Your task to perform on an android device: toggle notification dots Image 0: 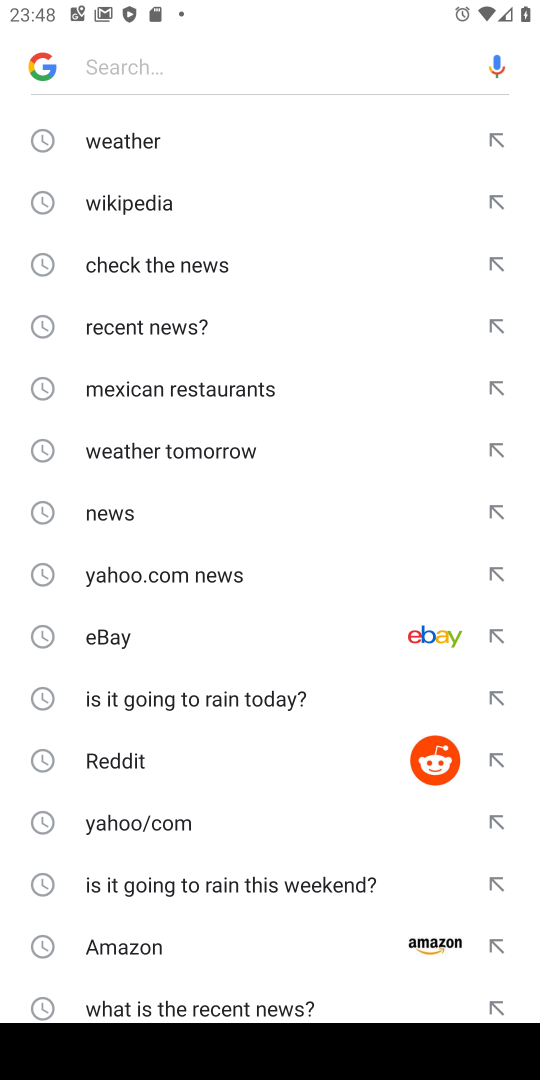
Step 0: press home button
Your task to perform on an android device: toggle notification dots Image 1: 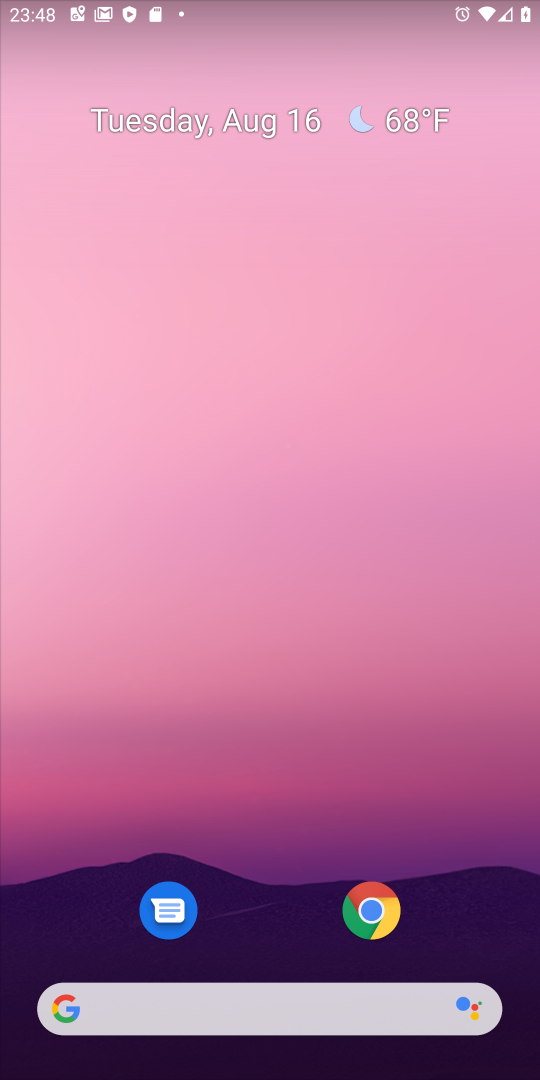
Step 1: drag from (258, 939) to (336, 217)
Your task to perform on an android device: toggle notification dots Image 2: 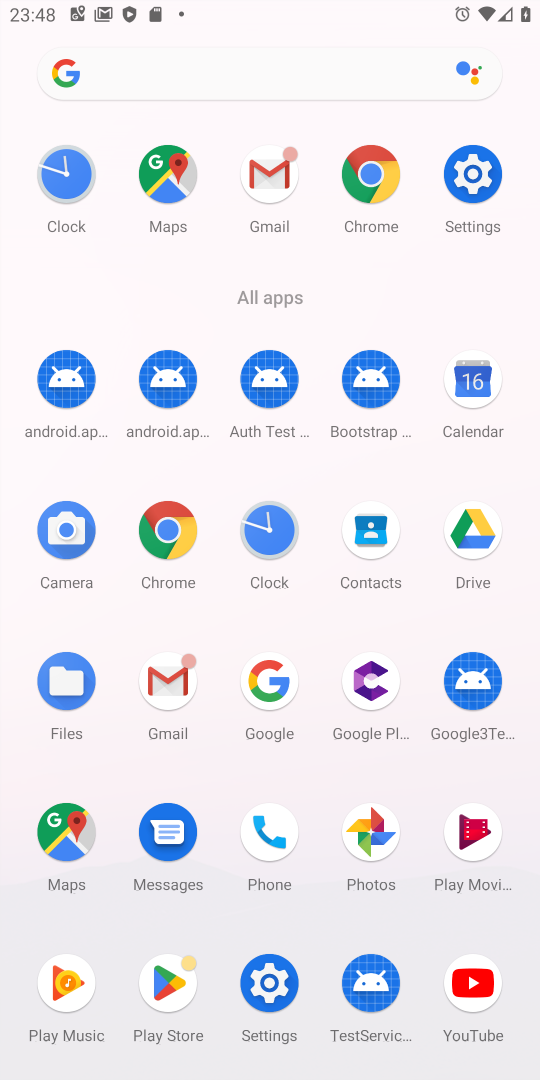
Step 2: click (261, 976)
Your task to perform on an android device: toggle notification dots Image 3: 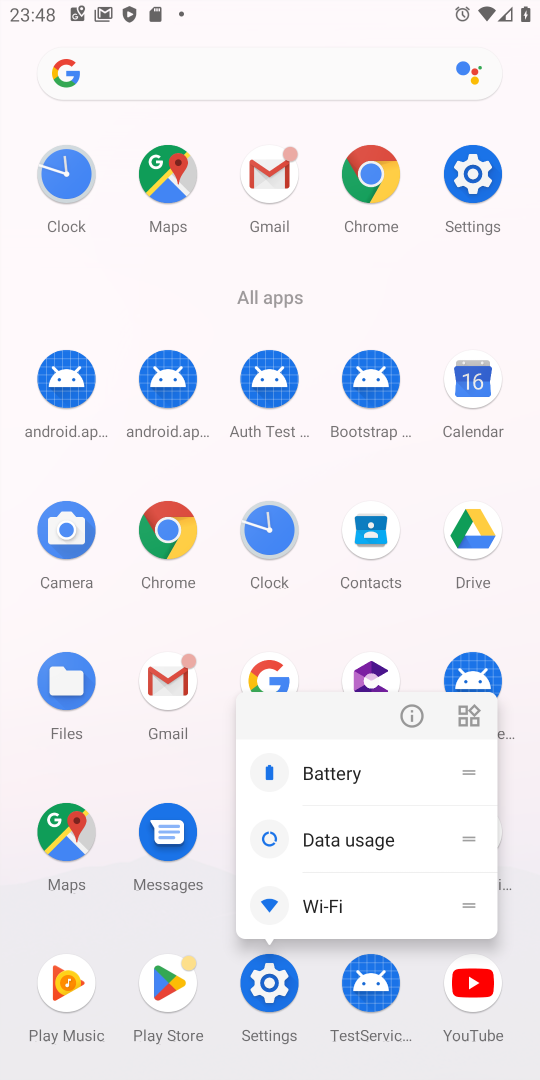
Step 3: click (270, 975)
Your task to perform on an android device: toggle notification dots Image 4: 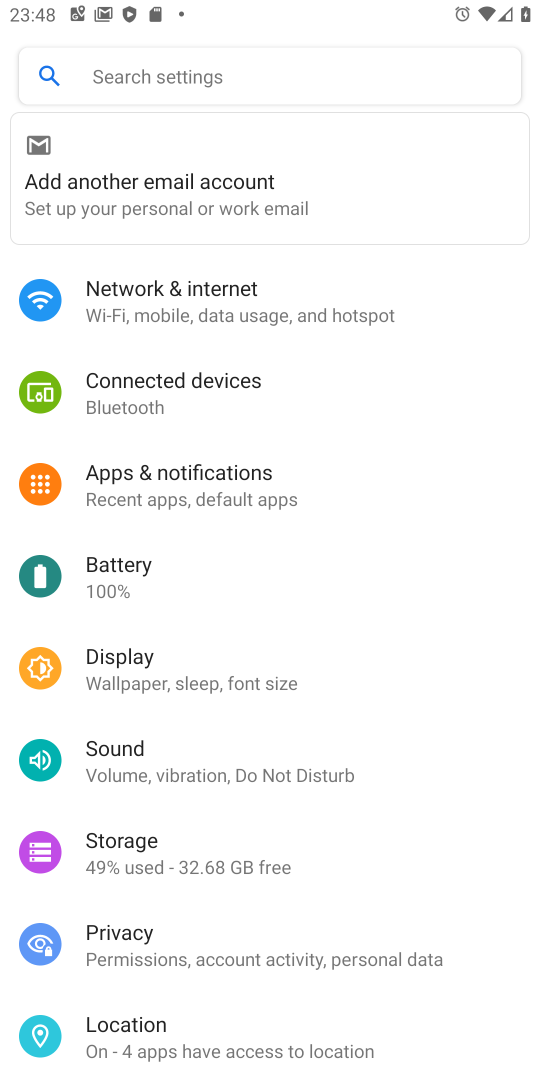
Step 4: click (237, 499)
Your task to perform on an android device: toggle notification dots Image 5: 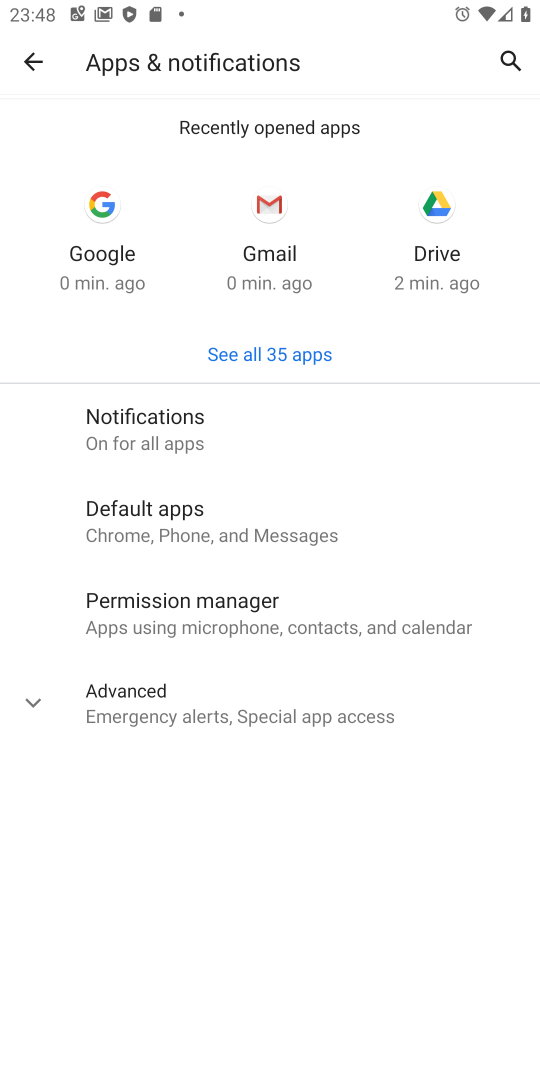
Step 5: click (185, 428)
Your task to perform on an android device: toggle notification dots Image 6: 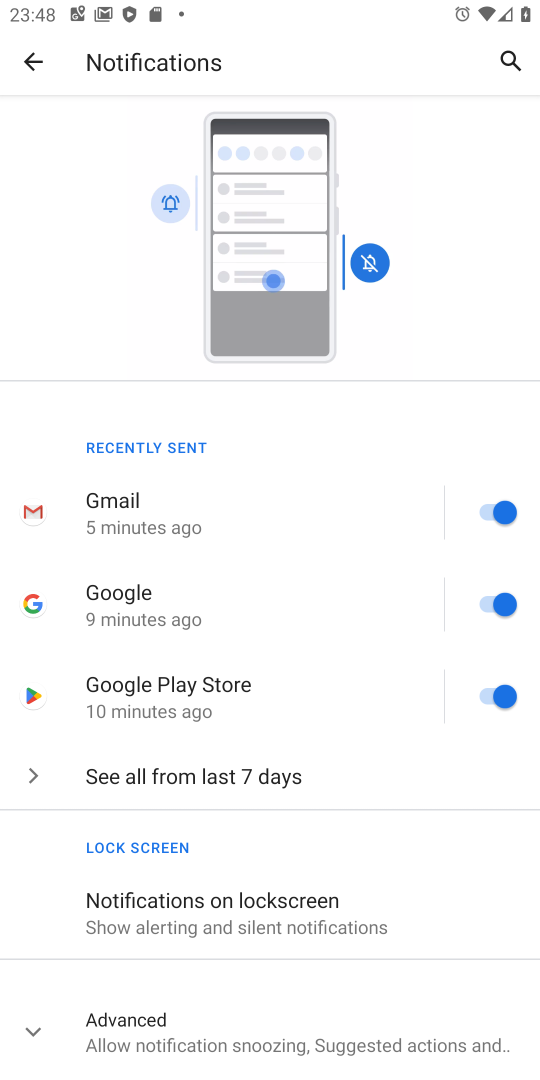
Step 6: drag from (205, 878) to (316, 274)
Your task to perform on an android device: toggle notification dots Image 7: 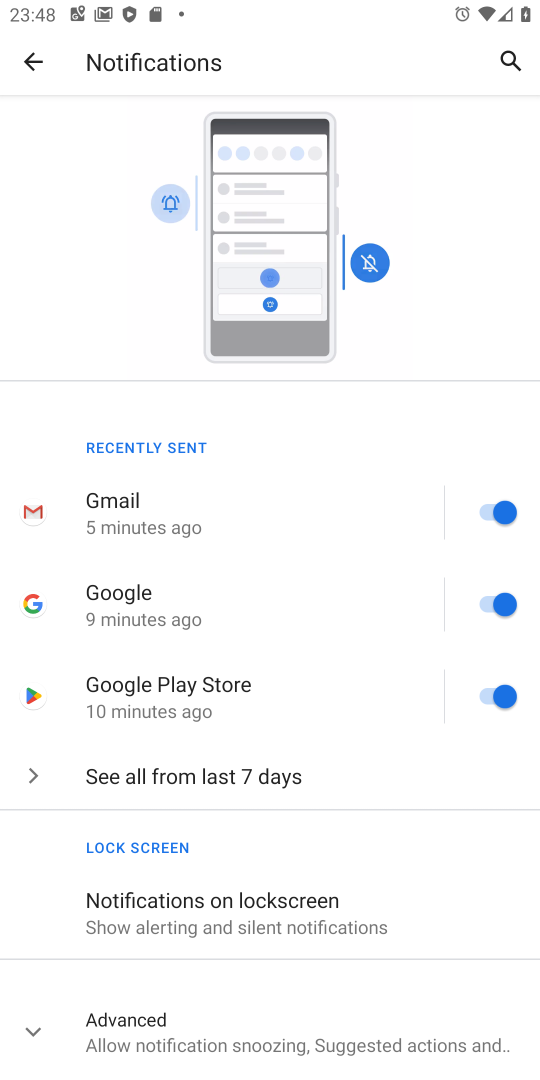
Step 7: click (163, 1039)
Your task to perform on an android device: toggle notification dots Image 8: 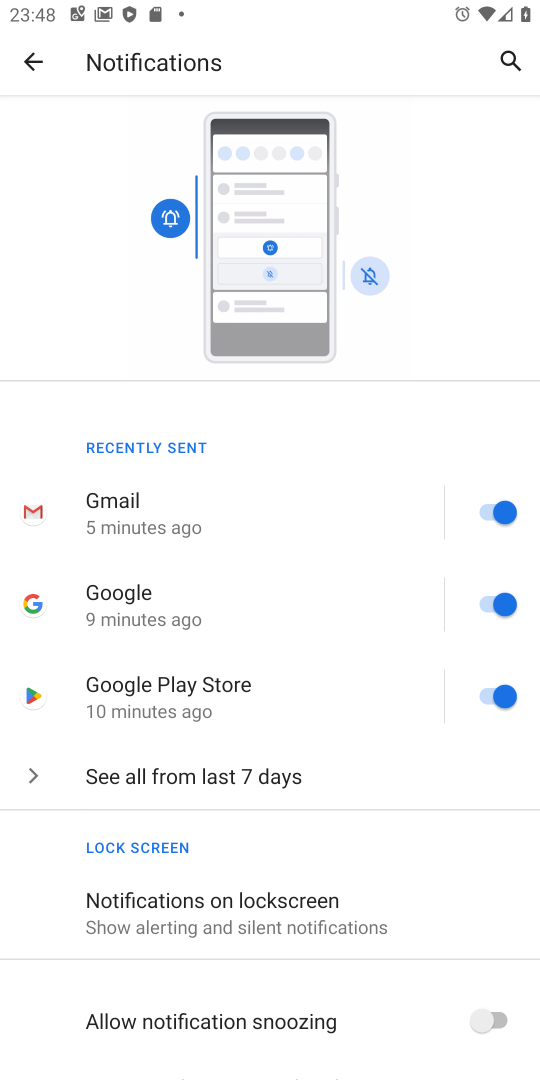
Step 8: drag from (435, 983) to (480, 246)
Your task to perform on an android device: toggle notification dots Image 9: 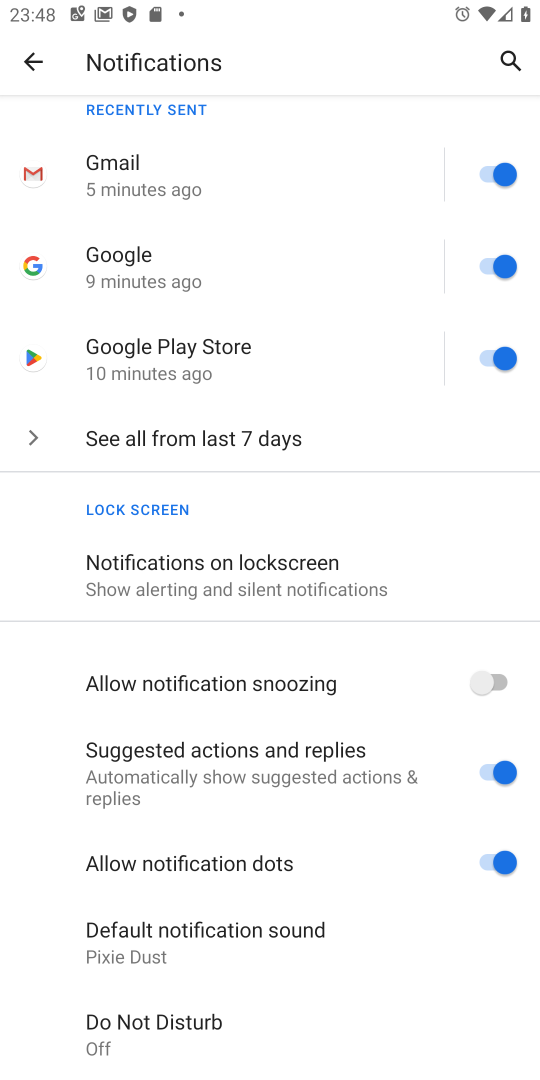
Step 9: click (507, 850)
Your task to perform on an android device: toggle notification dots Image 10: 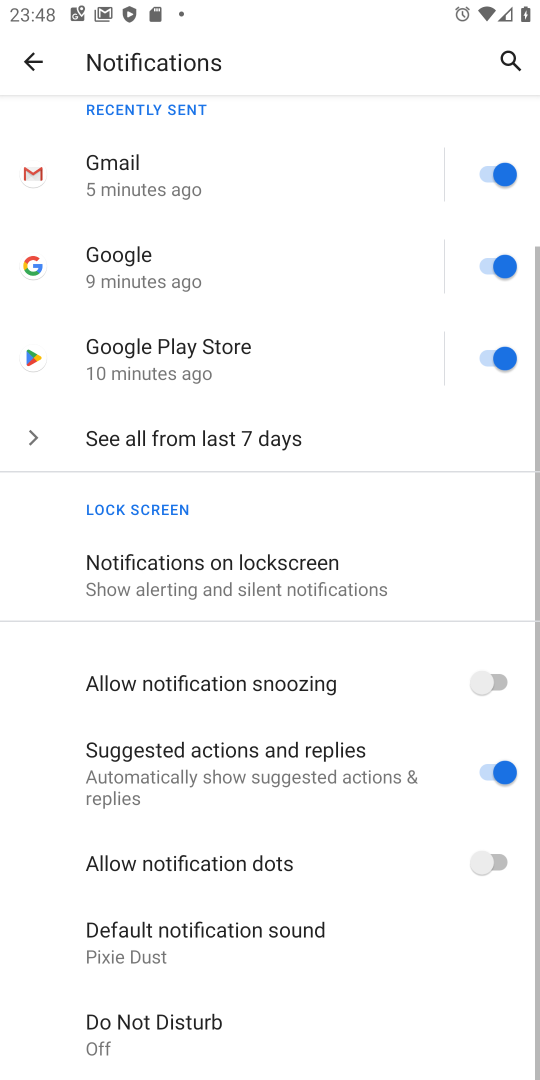
Step 10: task complete